Your task to perform on an android device: Open Android settings Image 0: 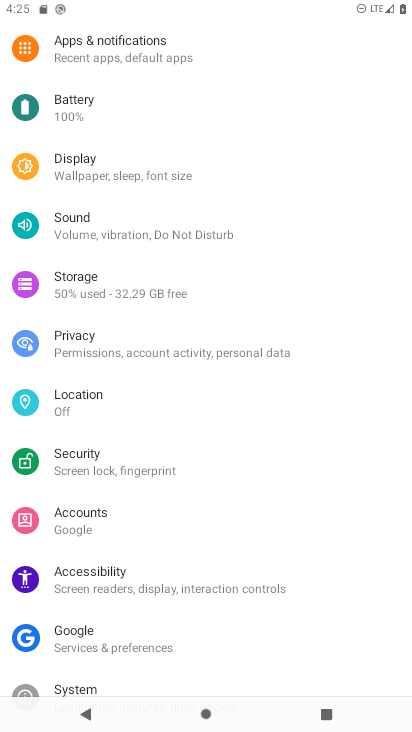
Step 0: drag from (227, 556) to (219, 211)
Your task to perform on an android device: Open Android settings Image 1: 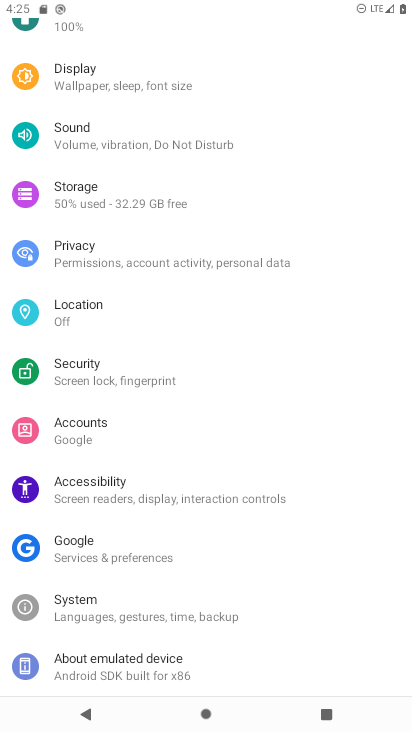
Step 1: click (140, 671)
Your task to perform on an android device: Open Android settings Image 2: 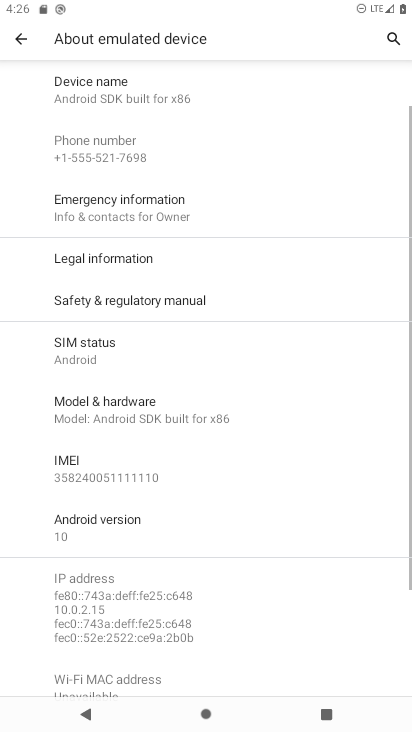
Step 2: task complete